Your task to perform on an android device: turn off improve location accuracy Image 0: 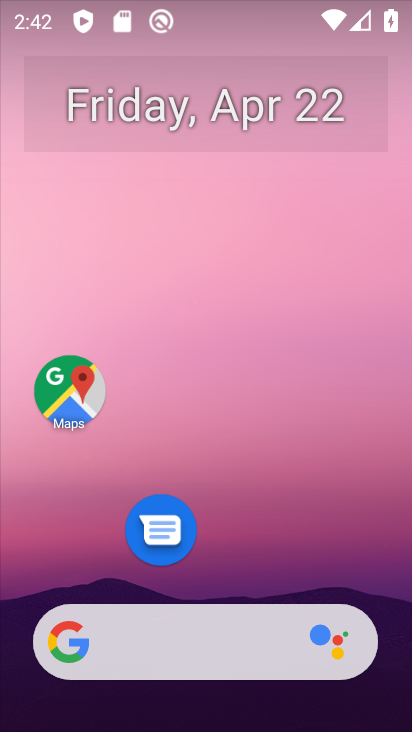
Step 0: drag from (232, 495) to (204, 7)
Your task to perform on an android device: turn off improve location accuracy Image 1: 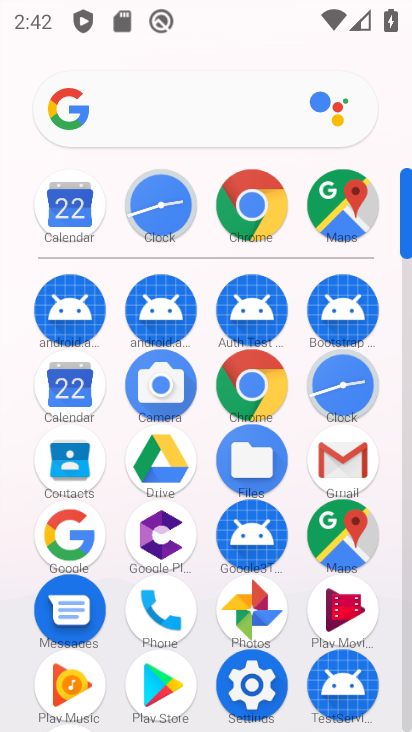
Step 1: click (244, 665)
Your task to perform on an android device: turn off improve location accuracy Image 2: 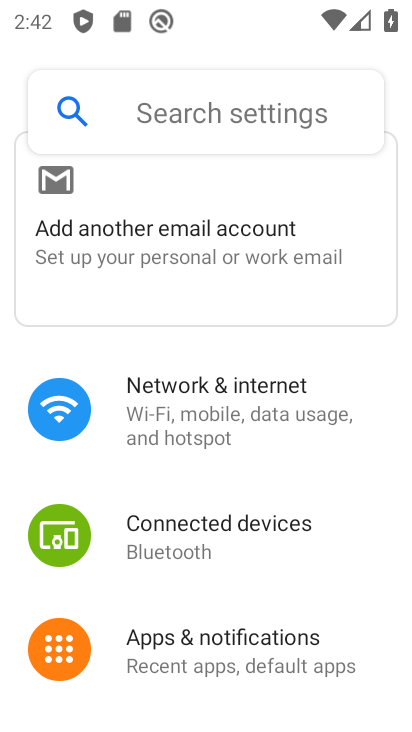
Step 2: drag from (186, 584) to (214, 164)
Your task to perform on an android device: turn off improve location accuracy Image 3: 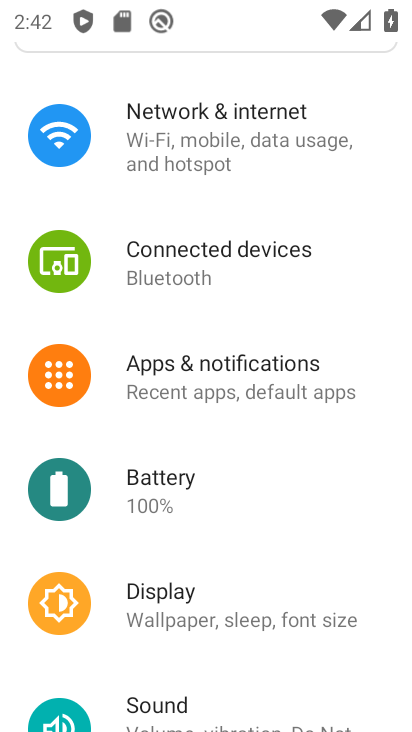
Step 3: drag from (214, 536) to (187, 247)
Your task to perform on an android device: turn off improve location accuracy Image 4: 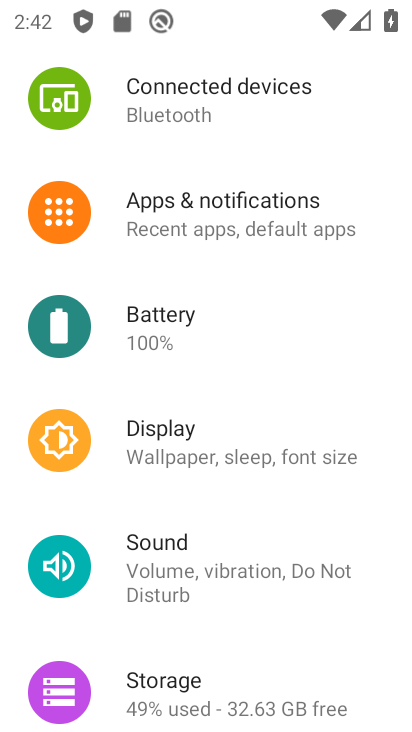
Step 4: drag from (224, 478) to (216, 176)
Your task to perform on an android device: turn off improve location accuracy Image 5: 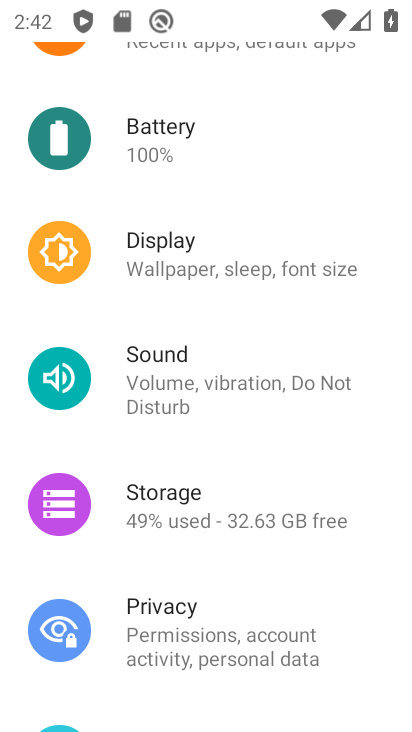
Step 5: drag from (248, 586) to (231, 207)
Your task to perform on an android device: turn off improve location accuracy Image 6: 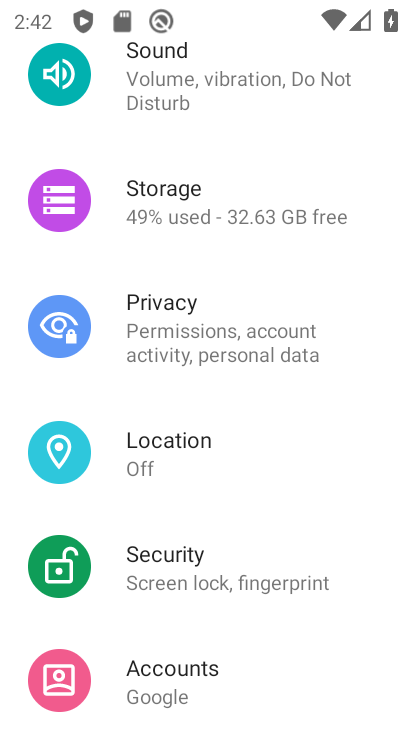
Step 6: click (145, 452)
Your task to perform on an android device: turn off improve location accuracy Image 7: 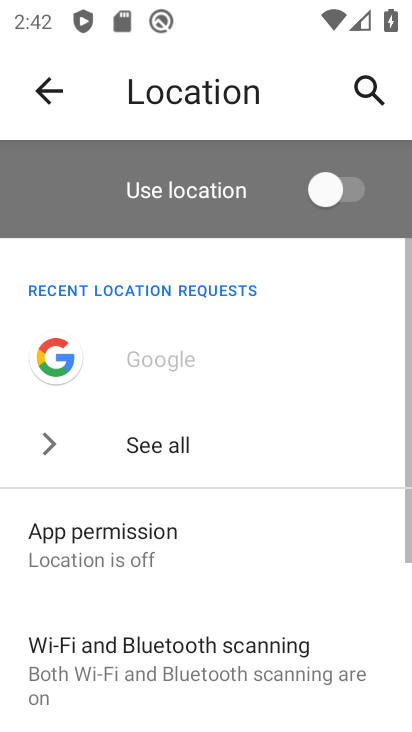
Step 7: drag from (224, 512) to (212, 211)
Your task to perform on an android device: turn off improve location accuracy Image 8: 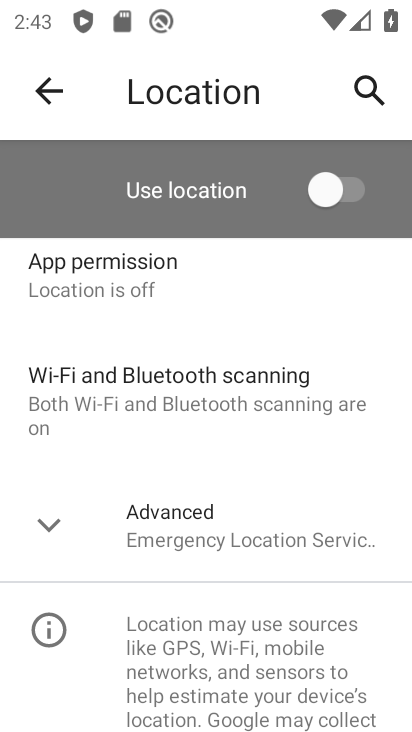
Step 8: click (47, 528)
Your task to perform on an android device: turn off improve location accuracy Image 9: 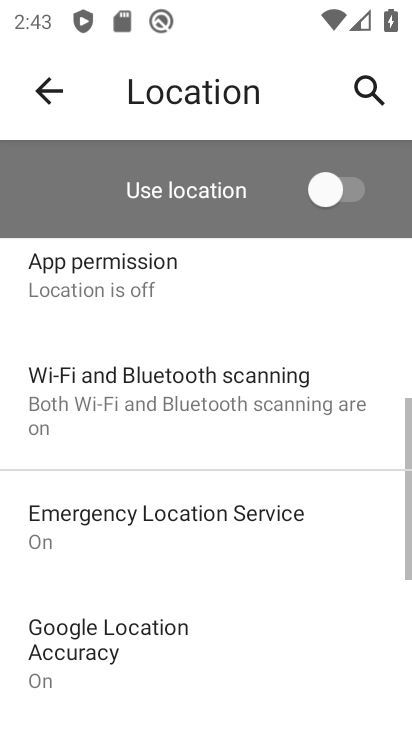
Step 9: drag from (234, 546) to (239, 291)
Your task to perform on an android device: turn off improve location accuracy Image 10: 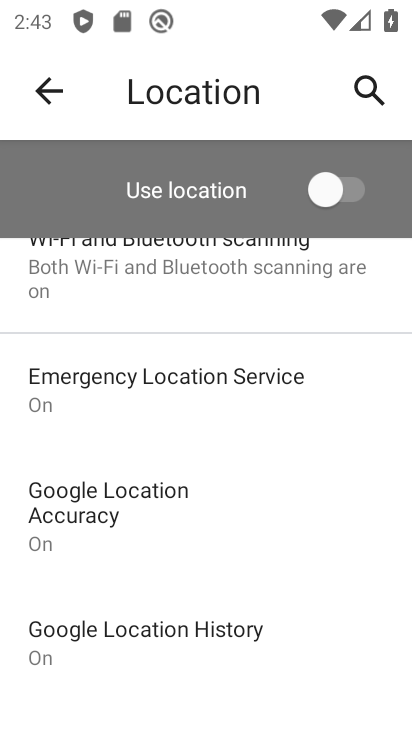
Step 10: click (71, 498)
Your task to perform on an android device: turn off improve location accuracy Image 11: 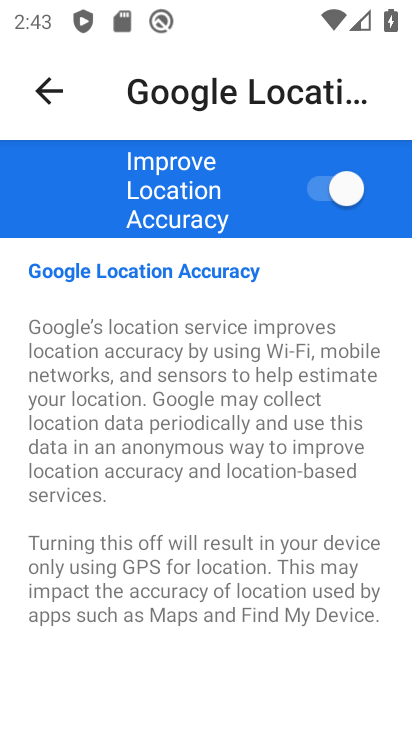
Step 11: click (332, 187)
Your task to perform on an android device: turn off improve location accuracy Image 12: 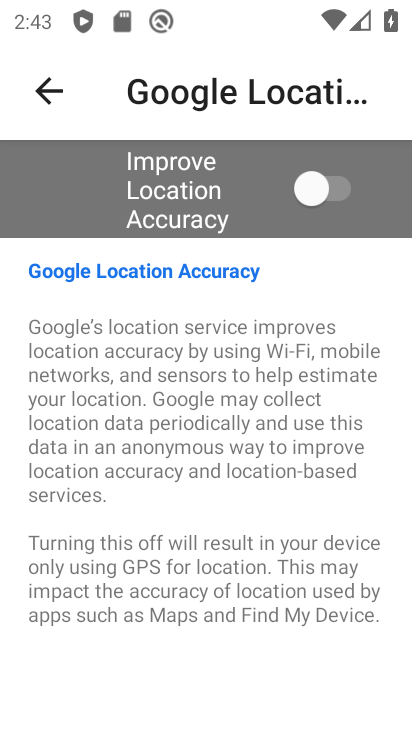
Step 12: task complete